Your task to perform on an android device: toggle notification dots Image 0: 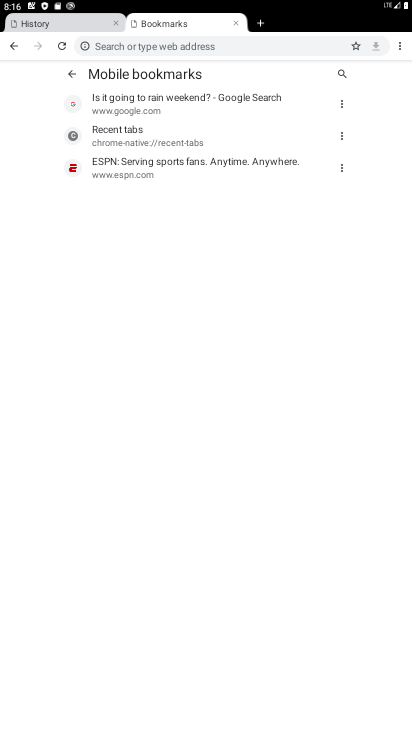
Step 0: press home button
Your task to perform on an android device: toggle notification dots Image 1: 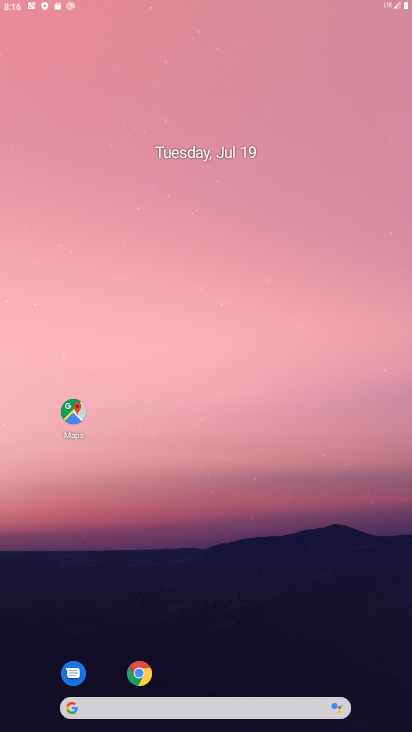
Step 1: drag from (401, 684) to (234, 152)
Your task to perform on an android device: toggle notification dots Image 2: 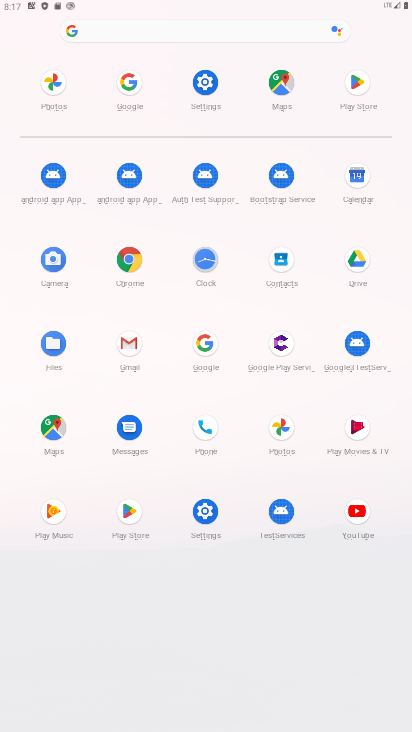
Step 2: click (204, 504)
Your task to perform on an android device: toggle notification dots Image 3: 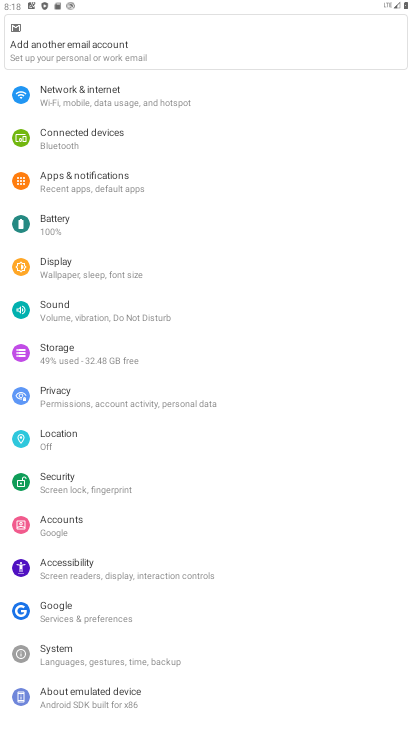
Step 3: click (126, 193)
Your task to perform on an android device: toggle notification dots Image 4: 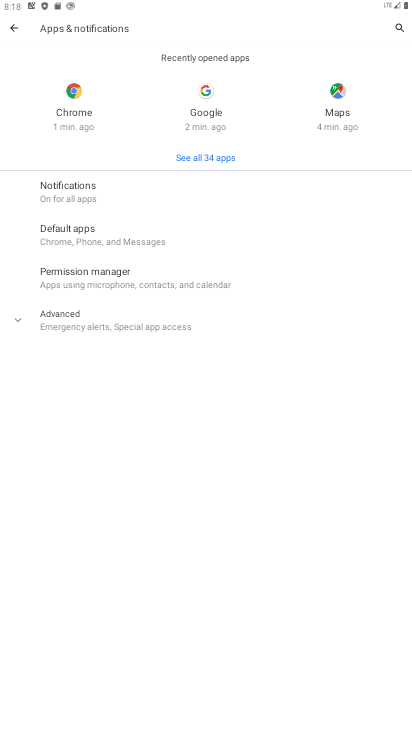
Step 4: click (81, 316)
Your task to perform on an android device: toggle notification dots Image 5: 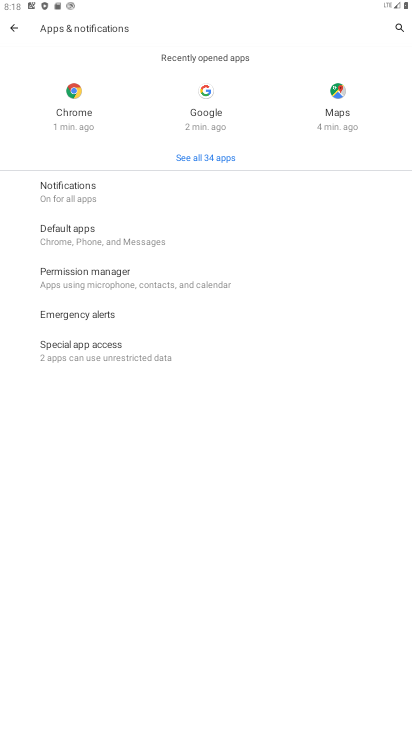
Step 5: click (104, 196)
Your task to perform on an android device: toggle notification dots Image 6: 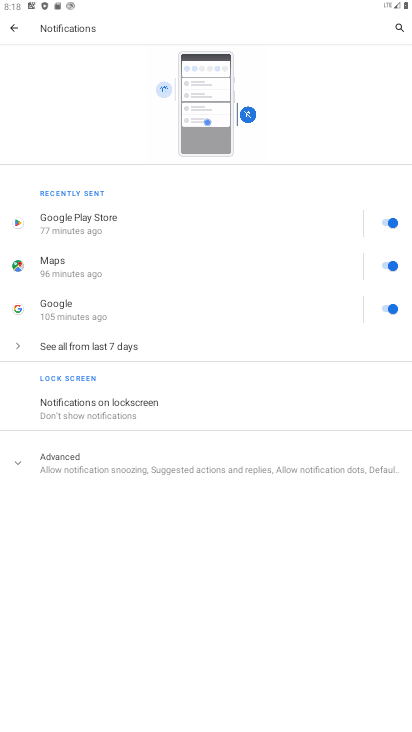
Step 6: click (60, 476)
Your task to perform on an android device: toggle notification dots Image 7: 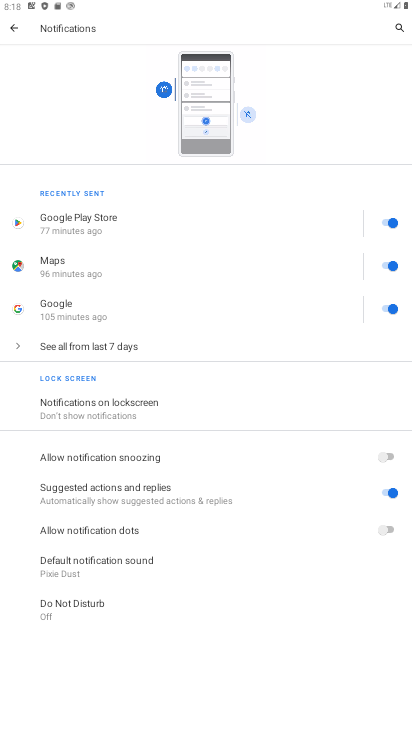
Step 7: click (132, 530)
Your task to perform on an android device: toggle notification dots Image 8: 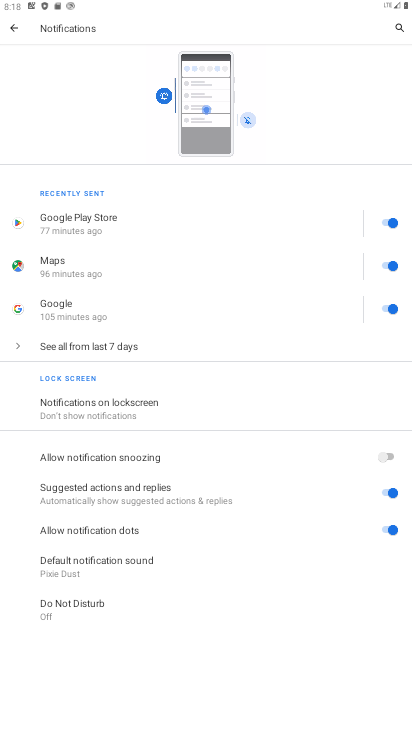
Step 8: task complete